Your task to perform on an android device: create a new album in the google photos Image 0: 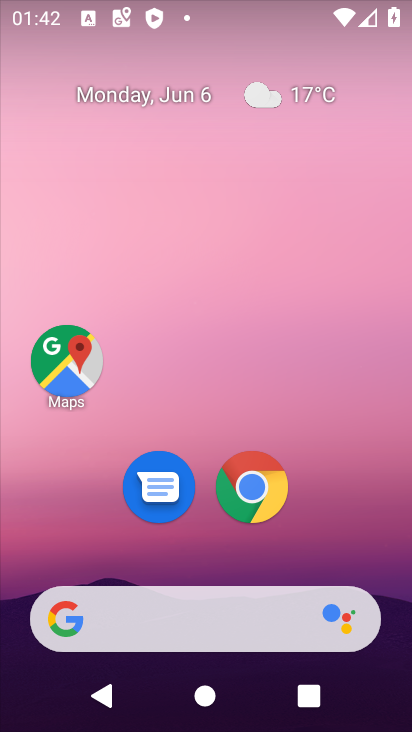
Step 0: drag from (400, 608) to (349, 114)
Your task to perform on an android device: create a new album in the google photos Image 1: 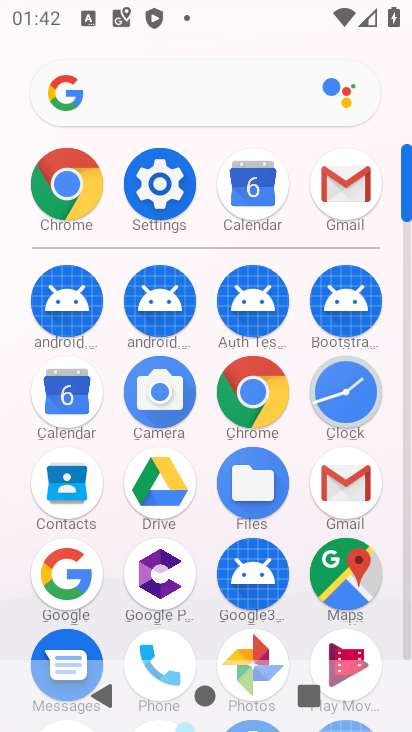
Step 1: click (405, 630)
Your task to perform on an android device: create a new album in the google photos Image 2: 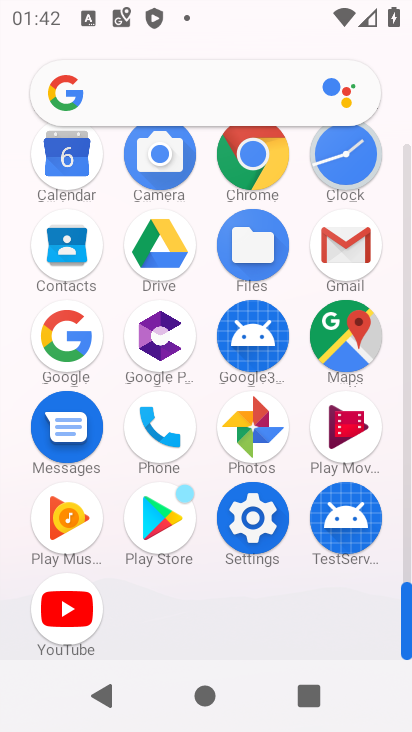
Step 2: click (249, 428)
Your task to perform on an android device: create a new album in the google photos Image 3: 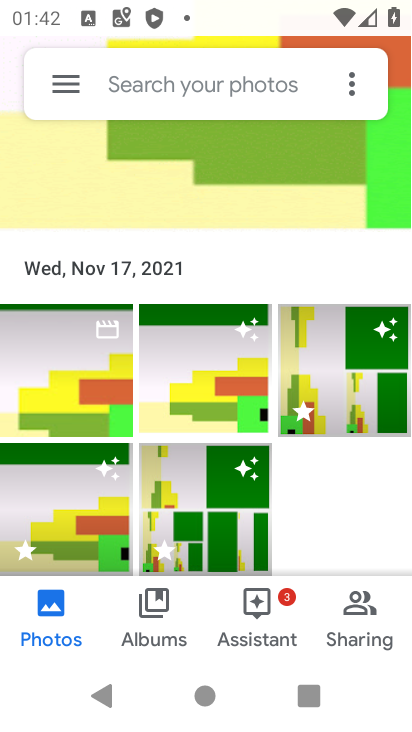
Step 3: click (158, 615)
Your task to perform on an android device: create a new album in the google photos Image 4: 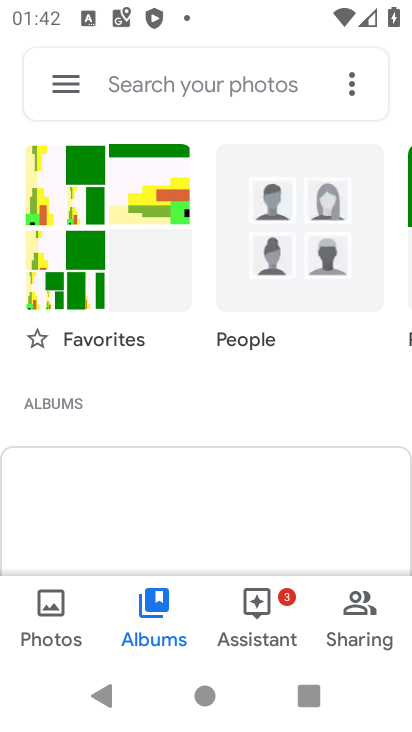
Step 4: drag from (217, 540) to (192, 122)
Your task to perform on an android device: create a new album in the google photos Image 5: 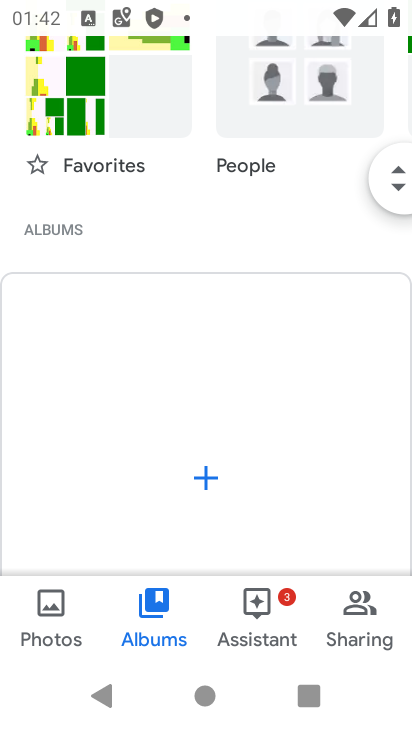
Step 5: click (206, 472)
Your task to perform on an android device: create a new album in the google photos Image 6: 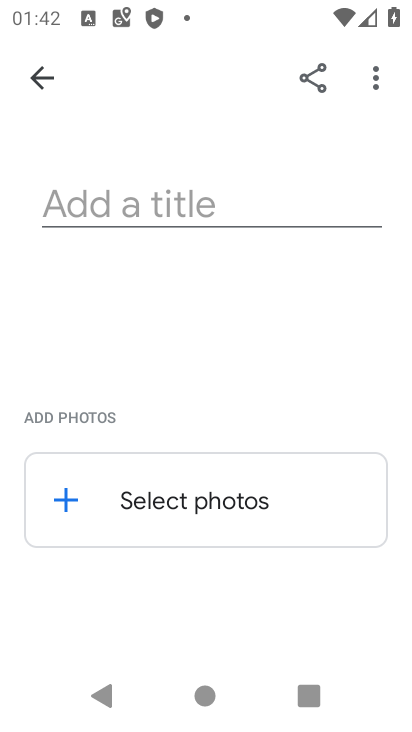
Step 6: click (133, 196)
Your task to perform on an android device: create a new album in the google photos Image 7: 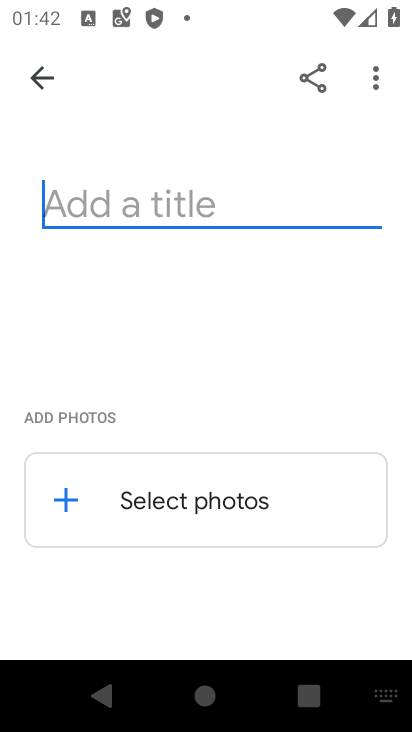
Step 7: type "yttjggnffasfsk gj"
Your task to perform on an android device: create a new album in the google photos Image 8: 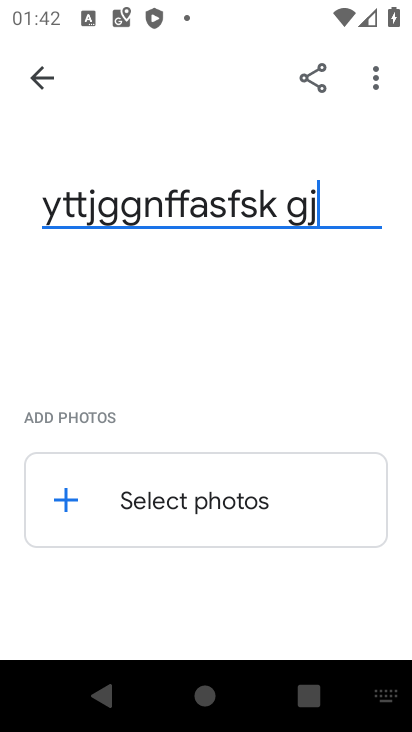
Step 8: click (65, 499)
Your task to perform on an android device: create a new album in the google photos Image 9: 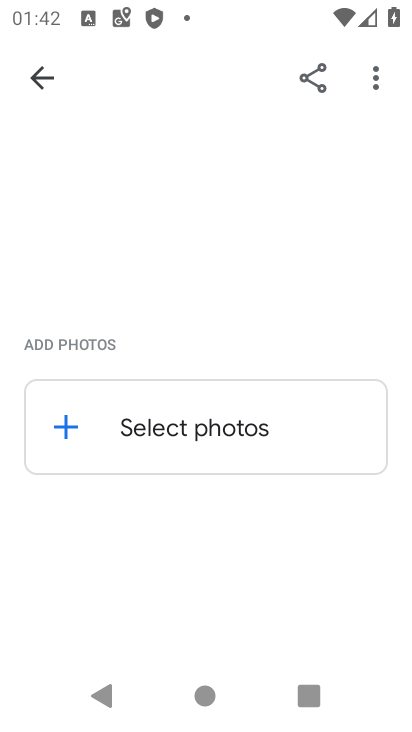
Step 9: click (63, 423)
Your task to perform on an android device: create a new album in the google photos Image 10: 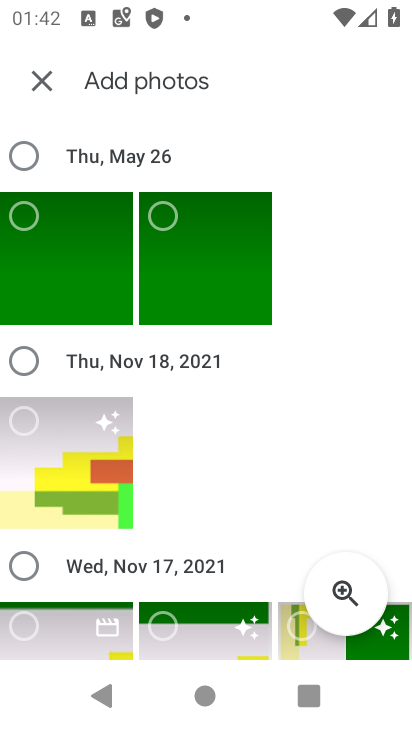
Step 10: click (19, 438)
Your task to perform on an android device: create a new album in the google photos Image 11: 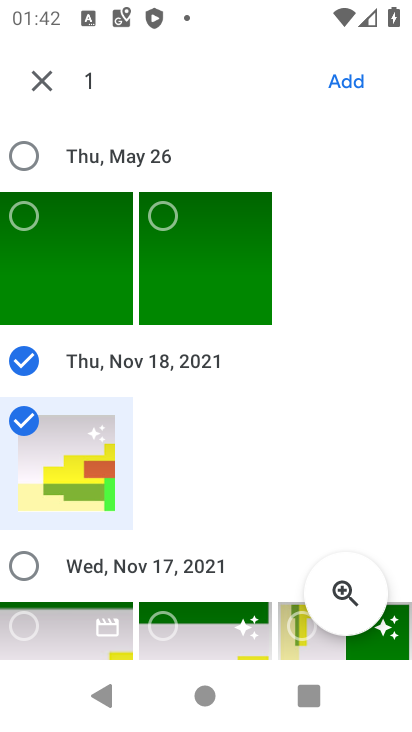
Step 11: click (158, 236)
Your task to perform on an android device: create a new album in the google photos Image 12: 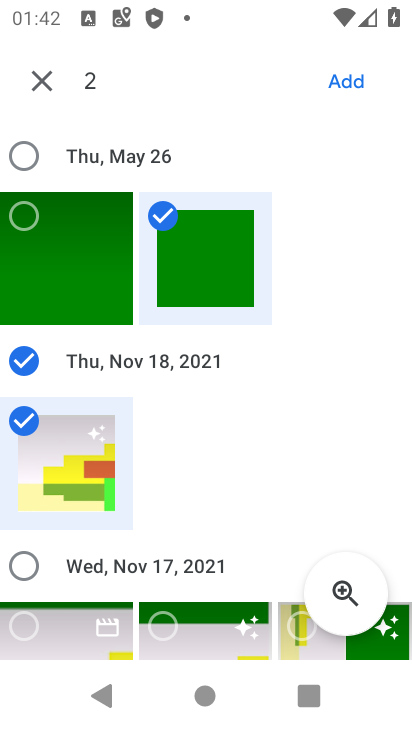
Step 12: click (355, 81)
Your task to perform on an android device: create a new album in the google photos Image 13: 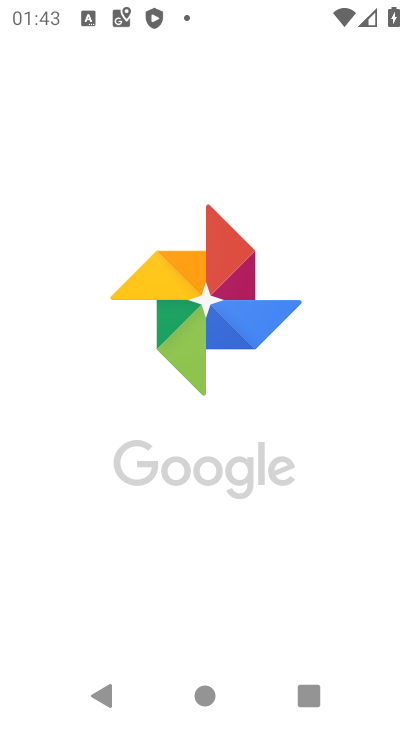
Step 13: task complete